Your task to perform on an android device: View the shopping cart on costco.com. Search for razer blade on costco.com, select the first entry, add it to the cart, then select checkout. Image 0: 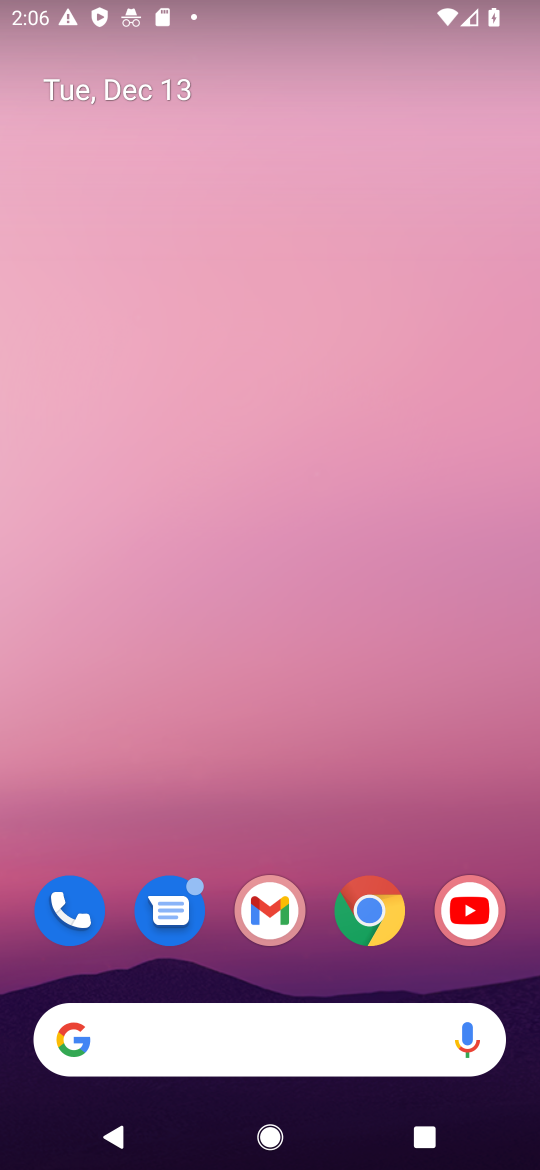
Step 0: click (374, 905)
Your task to perform on an android device: View the shopping cart on costco.com. Search for razer blade on costco.com, select the first entry, add it to the cart, then select checkout. Image 1: 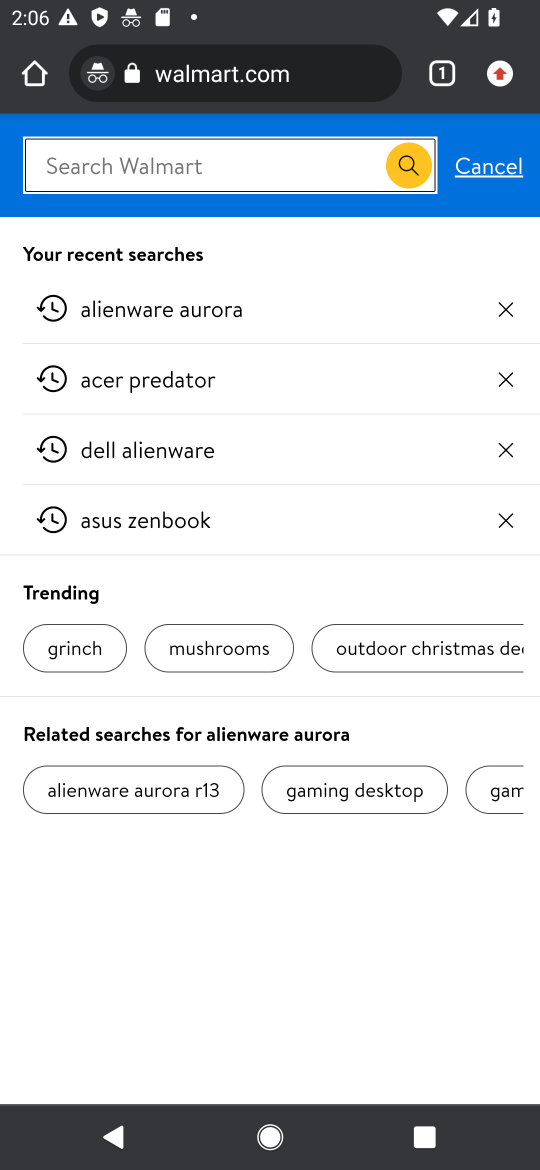
Step 1: click (308, 71)
Your task to perform on an android device: View the shopping cart on costco.com. Search for razer blade on costco.com, select the first entry, add it to the cart, then select checkout. Image 2: 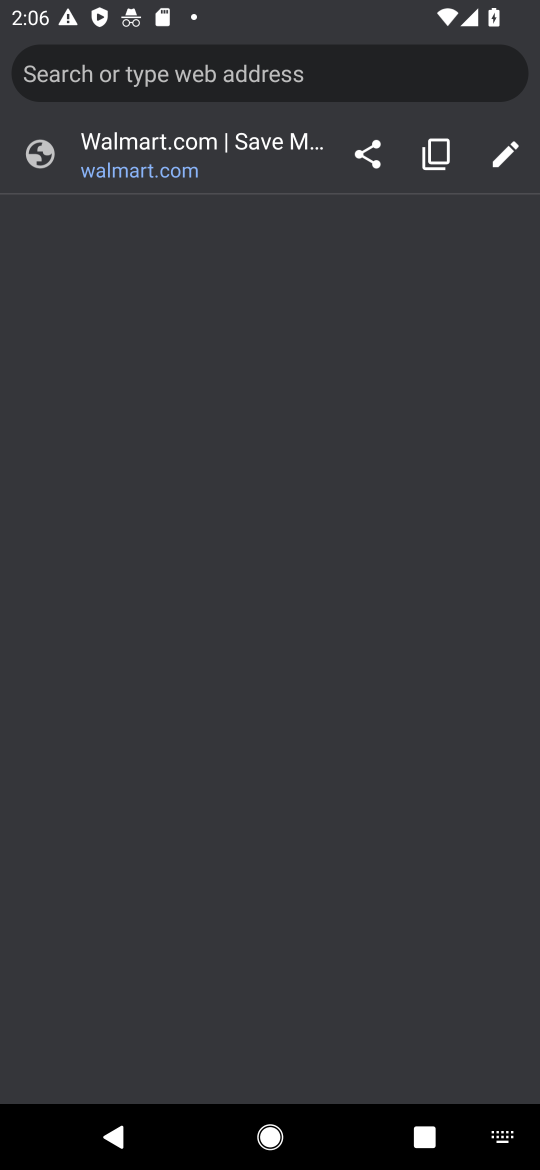
Step 2: type "COSTCO"
Your task to perform on an android device: View the shopping cart on costco.com. Search for razer blade on costco.com, select the first entry, add it to the cart, then select checkout. Image 3: 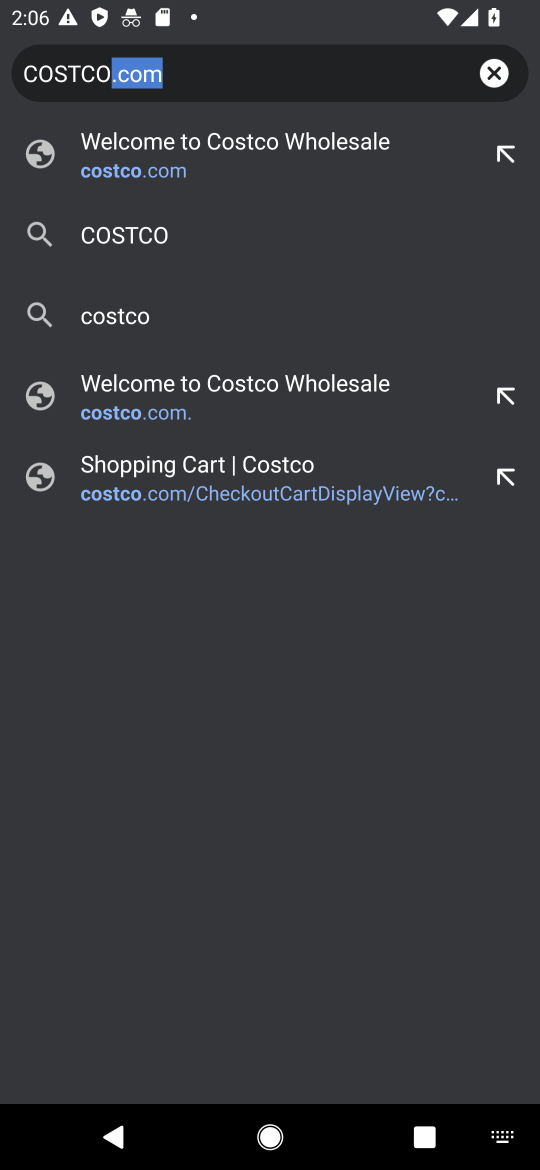
Step 3: click (209, 169)
Your task to perform on an android device: View the shopping cart on costco.com. Search for razer blade on costco.com, select the first entry, add it to the cart, then select checkout. Image 4: 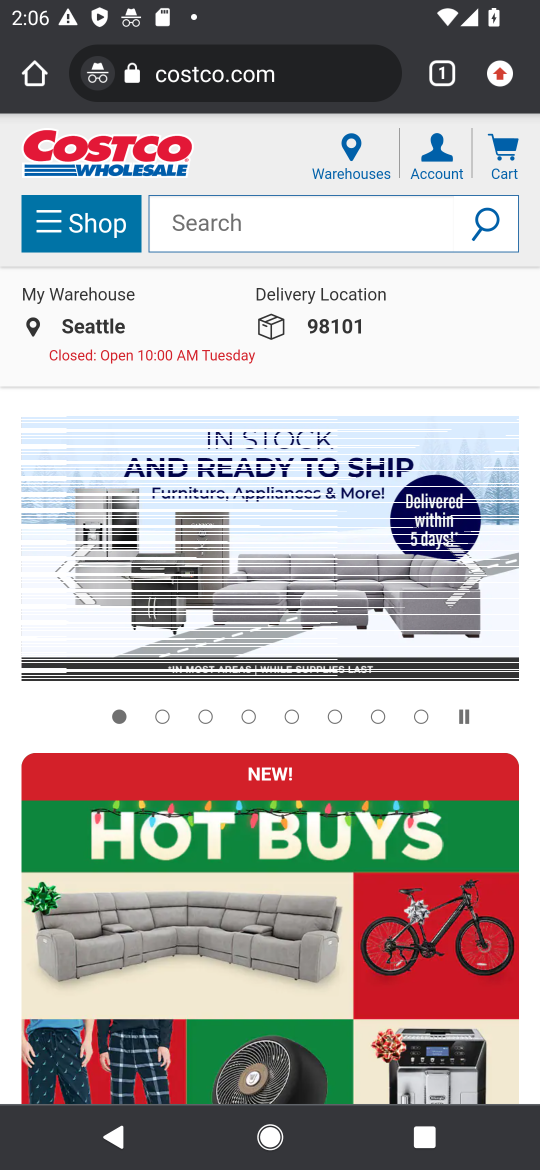
Step 4: click (312, 216)
Your task to perform on an android device: View the shopping cart on costco.com. Search for razer blade on costco.com, select the first entry, add it to the cart, then select checkout. Image 5: 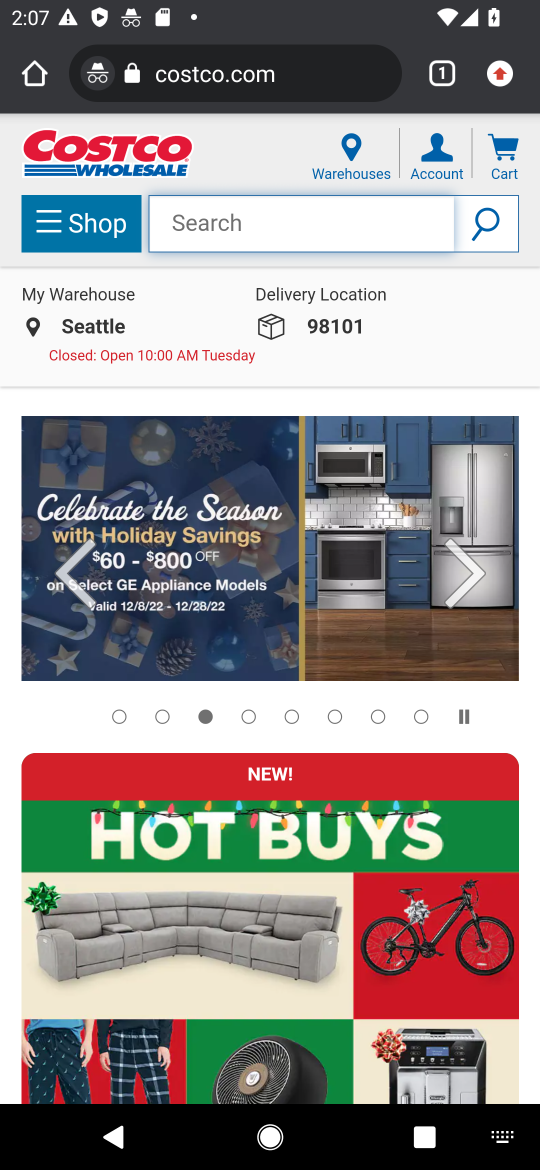
Step 5: click (277, 232)
Your task to perform on an android device: View the shopping cart on costco.com. Search for razer blade on costco.com, select the first entry, add it to the cart, then select checkout. Image 6: 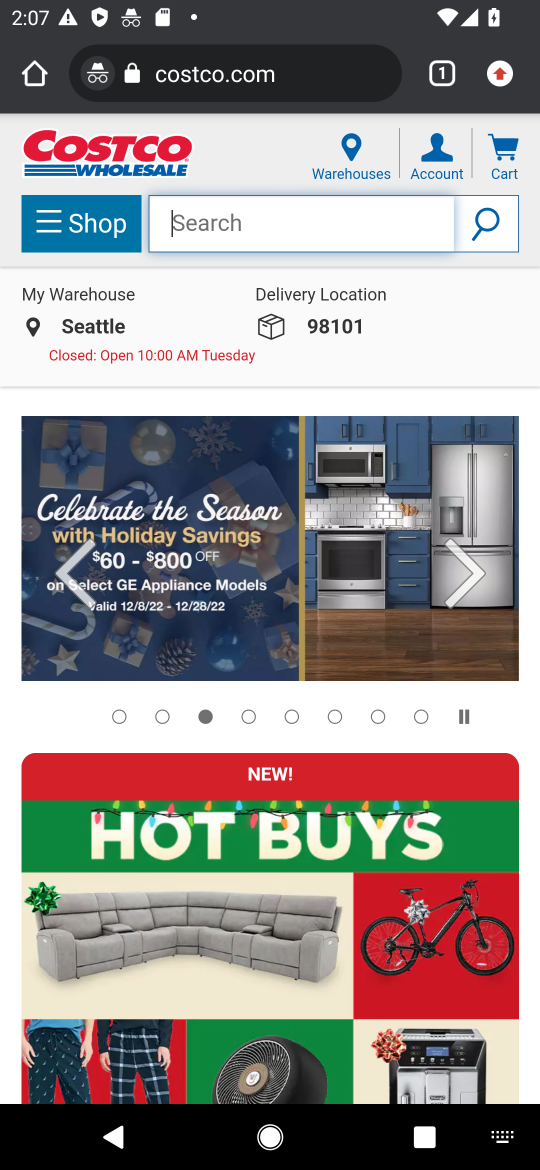
Step 6: type "razer blade "
Your task to perform on an android device: View the shopping cart on costco.com. Search for razer blade on costco.com, select the first entry, add it to the cart, then select checkout. Image 7: 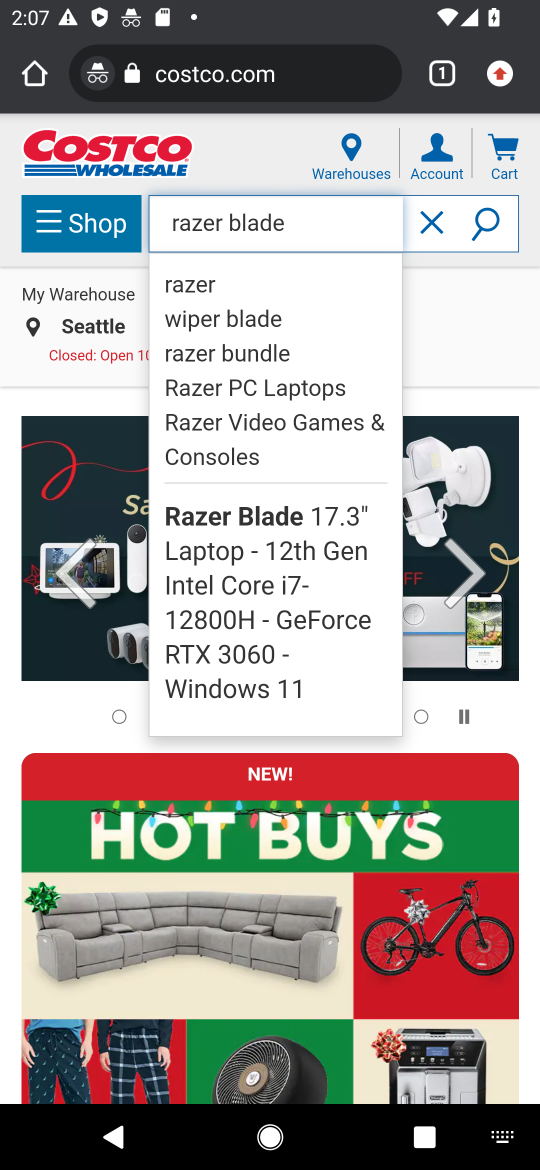
Step 7: click (200, 285)
Your task to perform on an android device: View the shopping cart on costco.com. Search for razer blade on costco.com, select the first entry, add it to the cart, then select checkout. Image 8: 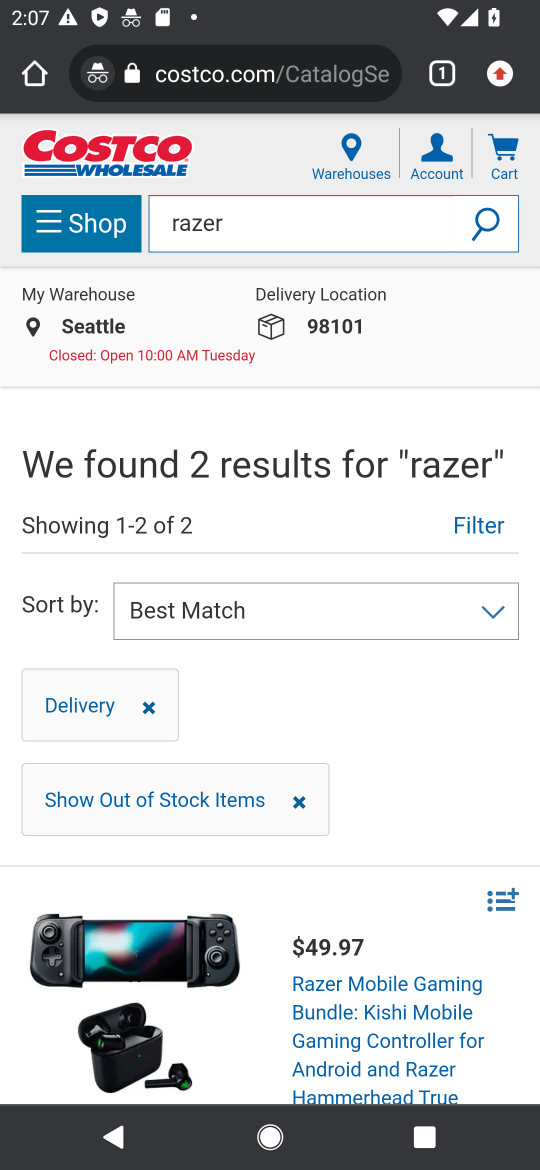
Step 8: click (237, 1006)
Your task to perform on an android device: View the shopping cart on costco.com. Search for razer blade on costco.com, select the first entry, add it to the cart, then select checkout. Image 9: 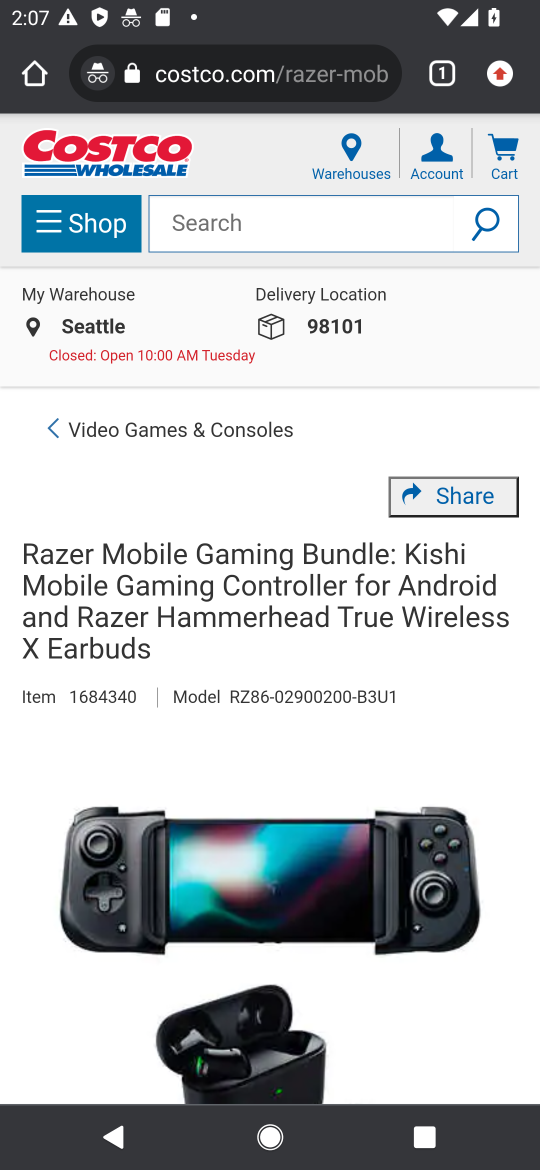
Step 9: drag from (463, 784) to (433, 275)
Your task to perform on an android device: View the shopping cart on costco.com. Search for razer blade on costco.com, select the first entry, add it to the cart, then select checkout. Image 10: 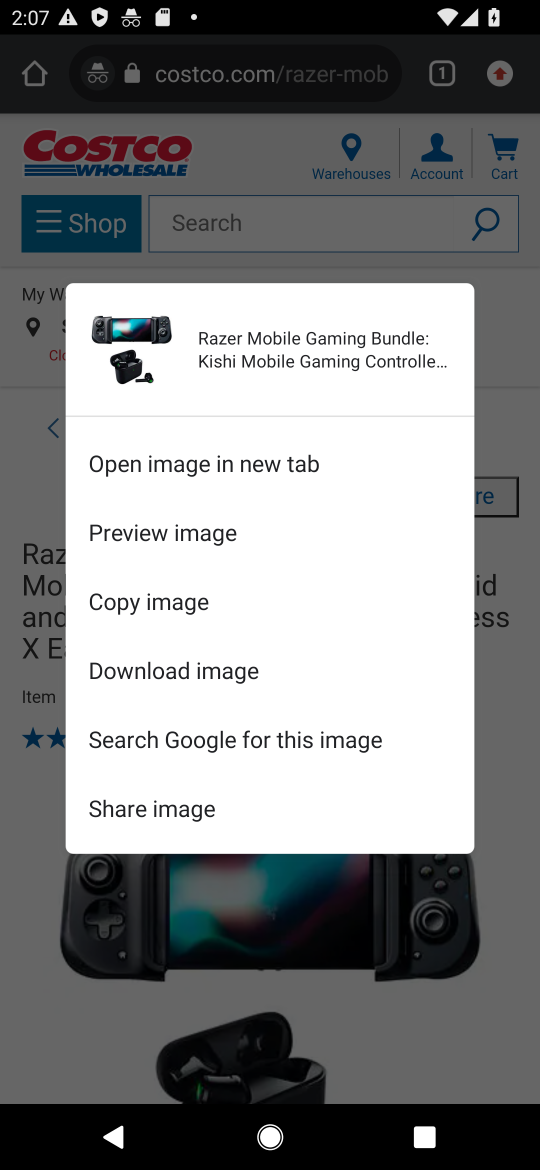
Step 10: click (511, 765)
Your task to perform on an android device: View the shopping cart on costco.com. Search for razer blade on costco.com, select the first entry, add it to the cart, then select checkout. Image 11: 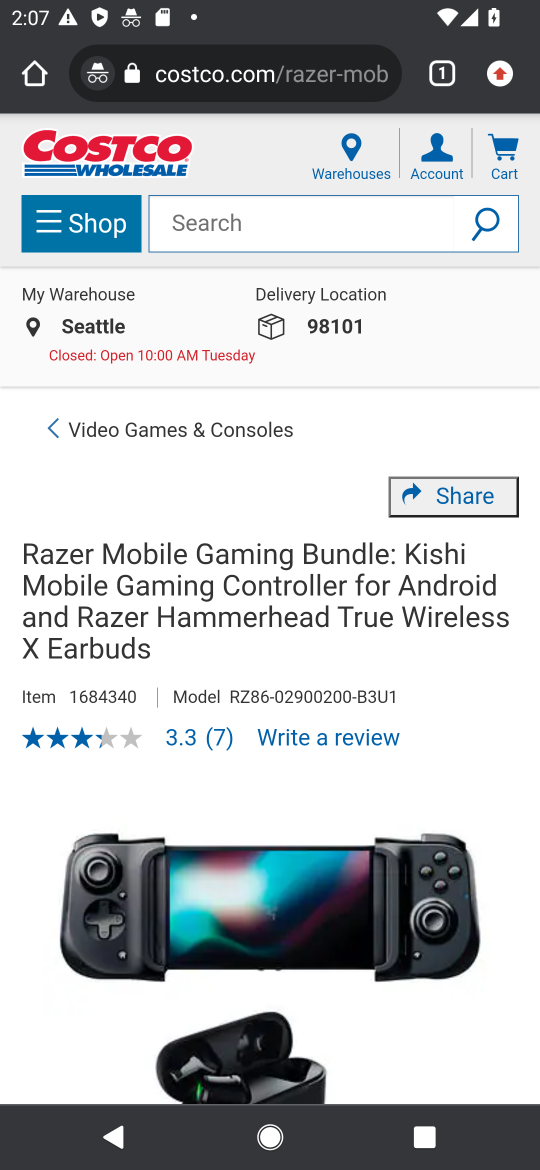
Step 11: drag from (487, 829) to (438, 283)
Your task to perform on an android device: View the shopping cart on costco.com. Search for razer blade on costco.com, select the first entry, add it to the cart, then select checkout. Image 12: 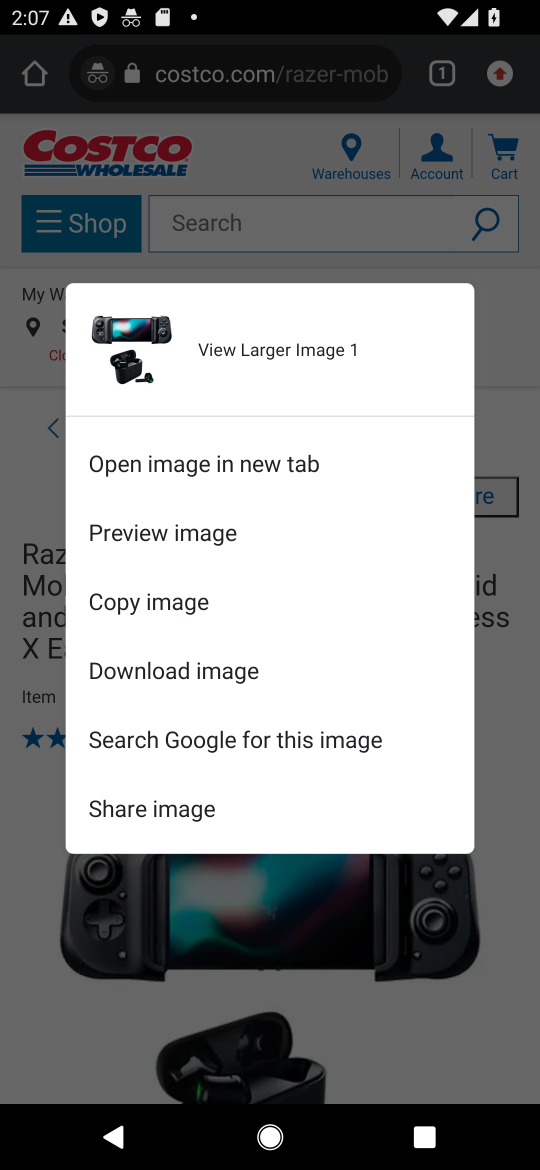
Step 12: click (514, 340)
Your task to perform on an android device: View the shopping cart on costco.com. Search for razer blade on costco.com, select the first entry, add it to the cart, then select checkout. Image 13: 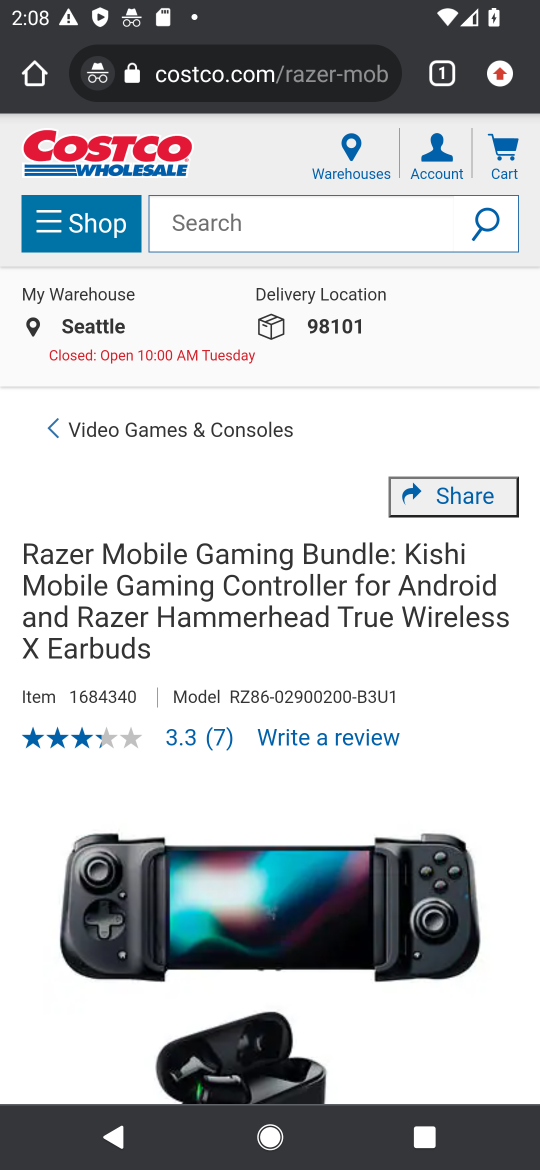
Step 13: drag from (407, 918) to (367, 275)
Your task to perform on an android device: View the shopping cart on costco.com. Search for razer blade on costco.com, select the first entry, add it to the cart, then select checkout. Image 14: 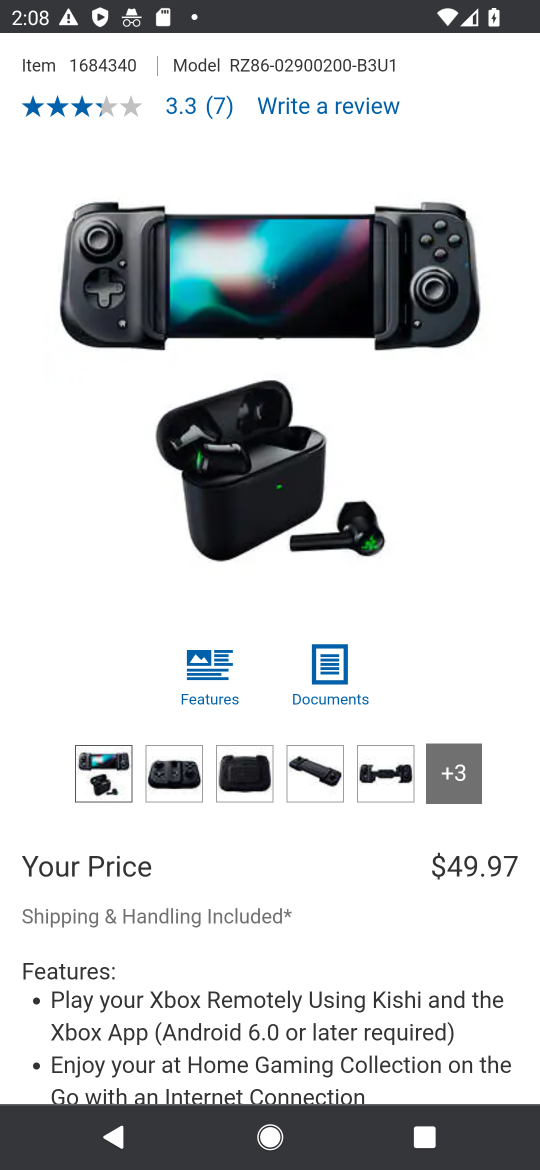
Step 14: drag from (411, 1027) to (375, 293)
Your task to perform on an android device: View the shopping cart on costco.com. Search for razer blade on costco.com, select the first entry, add it to the cart, then select checkout. Image 15: 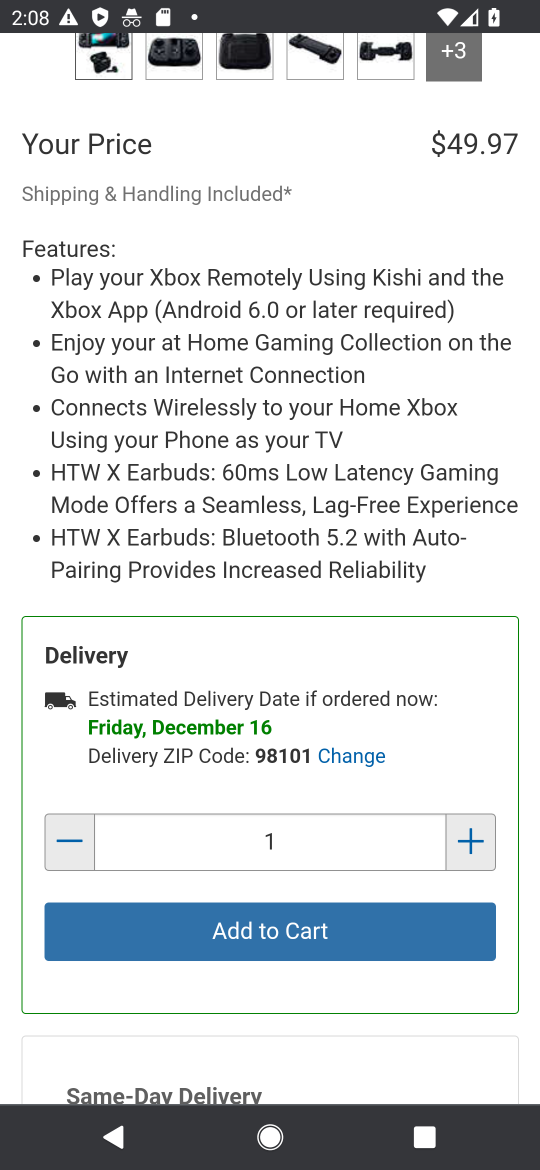
Step 15: click (288, 943)
Your task to perform on an android device: View the shopping cart on costco.com. Search for razer blade on costco.com, select the first entry, add it to the cart, then select checkout. Image 16: 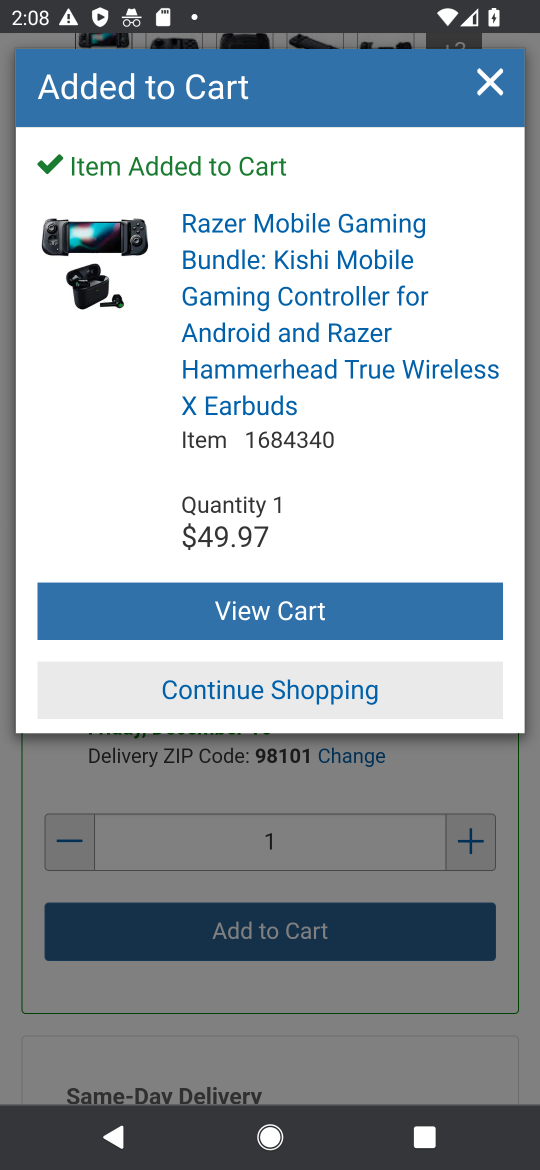
Step 16: click (334, 613)
Your task to perform on an android device: View the shopping cart on costco.com. Search for razer blade on costco.com, select the first entry, add it to the cart, then select checkout. Image 17: 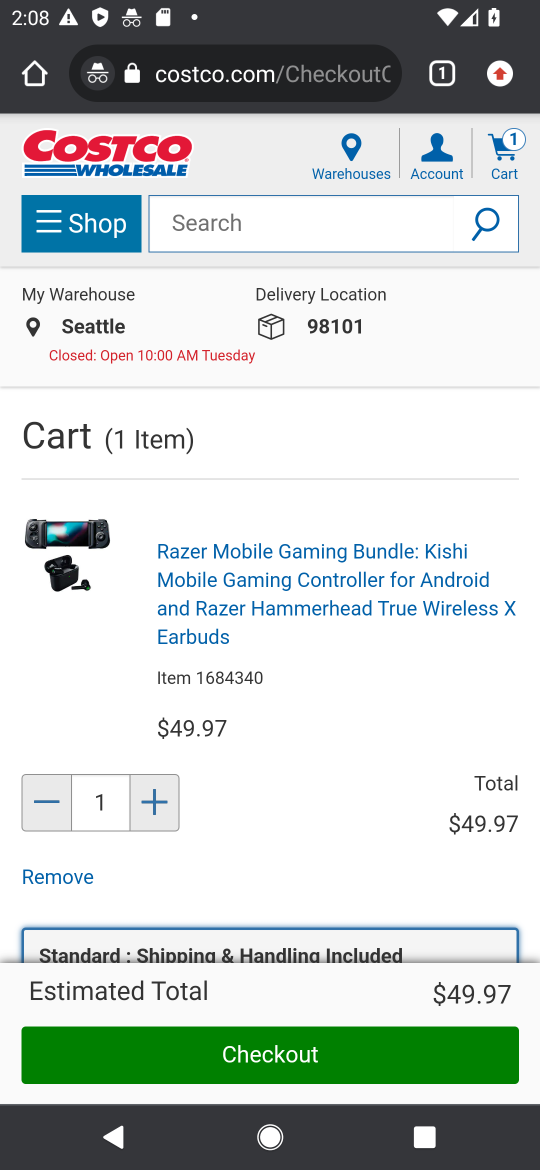
Step 17: click (296, 1056)
Your task to perform on an android device: View the shopping cart on costco.com. Search for razer blade on costco.com, select the first entry, add it to the cart, then select checkout. Image 18: 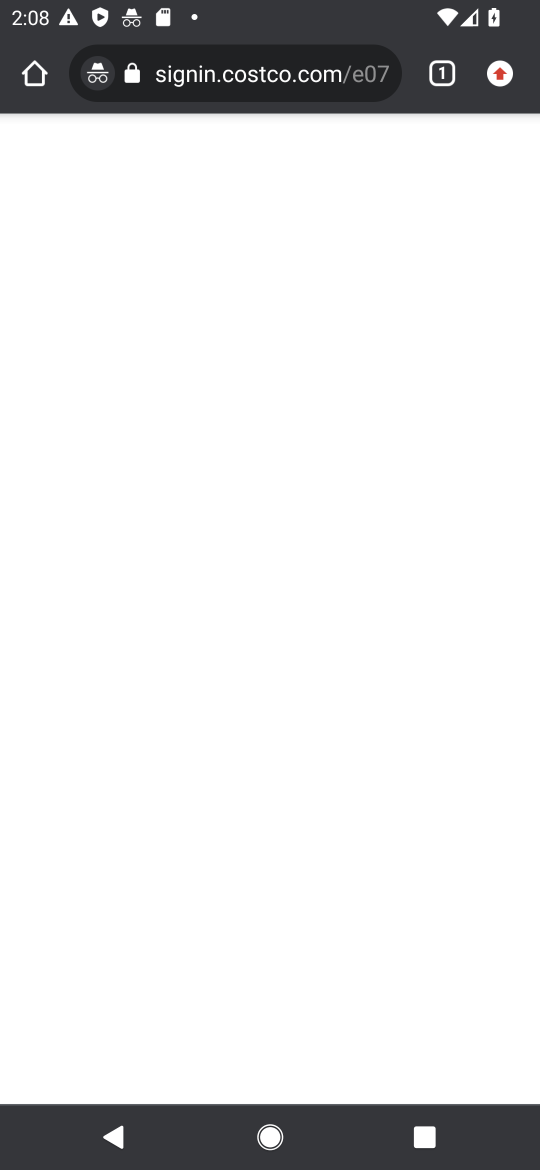
Step 18: task complete